Your task to perform on an android device: toggle sleep mode Image 0: 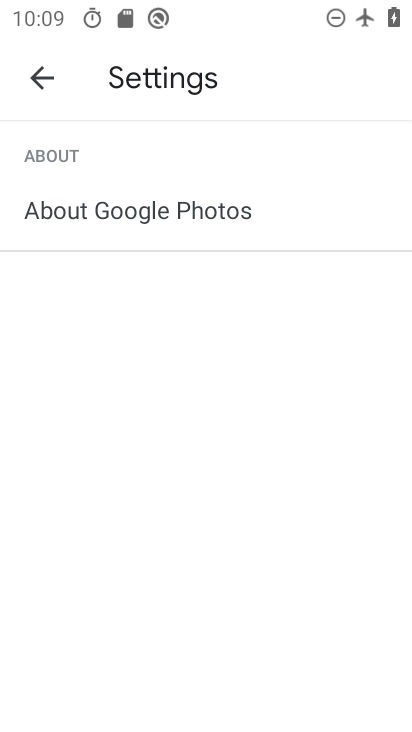
Step 0: press home button
Your task to perform on an android device: toggle sleep mode Image 1: 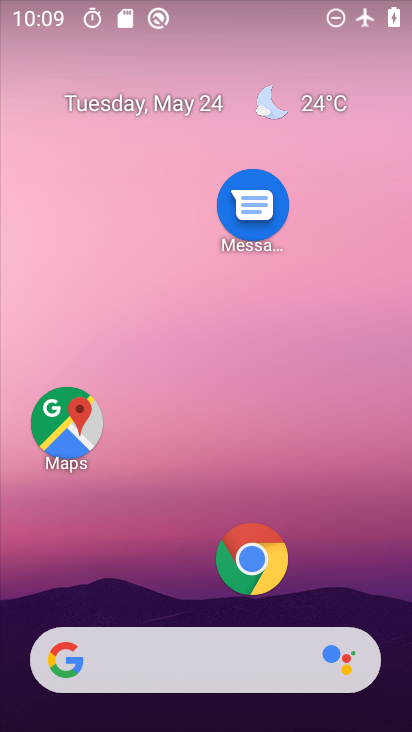
Step 1: drag from (176, 573) to (202, 220)
Your task to perform on an android device: toggle sleep mode Image 2: 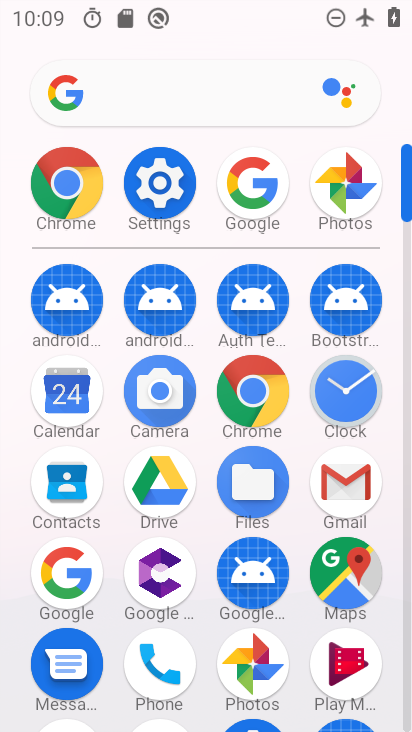
Step 2: click (167, 184)
Your task to perform on an android device: toggle sleep mode Image 3: 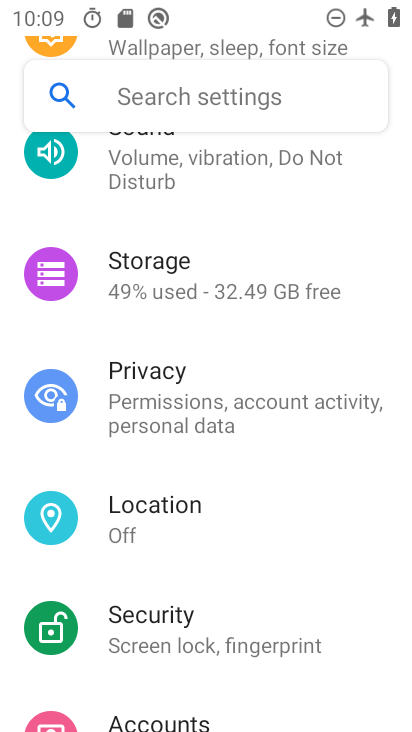
Step 3: drag from (167, 184) to (152, 444)
Your task to perform on an android device: toggle sleep mode Image 4: 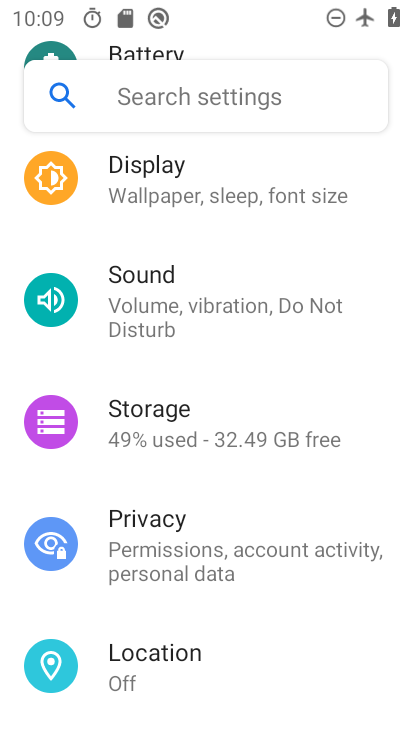
Step 4: drag from (257, 247) to (257, 563)
Your task to perform on an android device: toggle sleep mode Image 5: 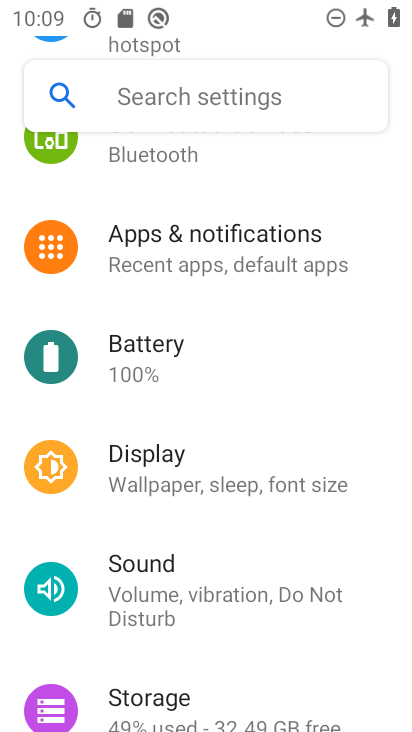
Step 5: drag from (227, 178) to (227, 484)
Your task to perform on an android device: toggle sleep mode Image 6: 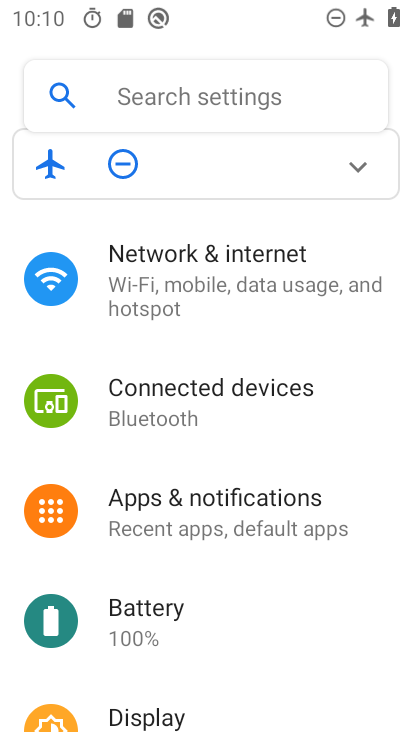
Step 6: drag from (192, 692) to (232, 416)
Your task to perform on an android device: toggle sleep mode Image 7: 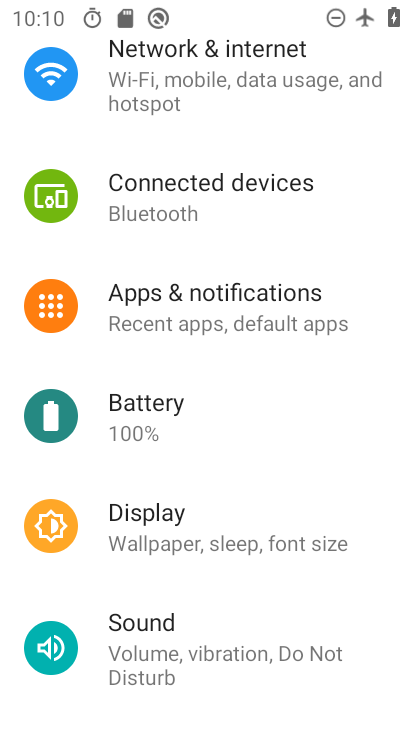
Step 7: click (219, 521)
Your task to perform on an android device: toggle sleep mode Image 8: 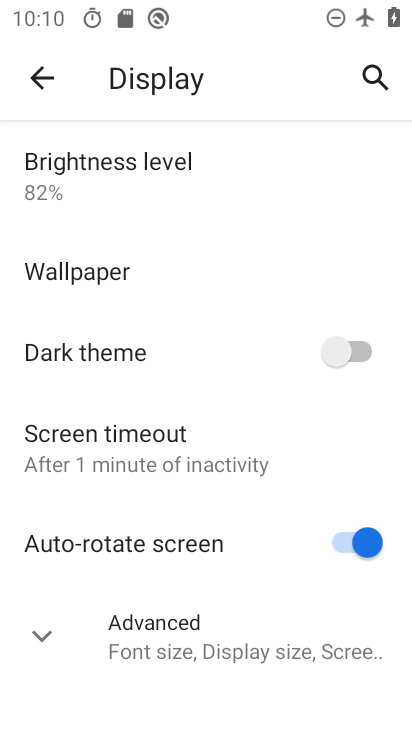
Step 8: click (186, 642)
Your task to perform on an android device: toggle sleep mode Image 9: 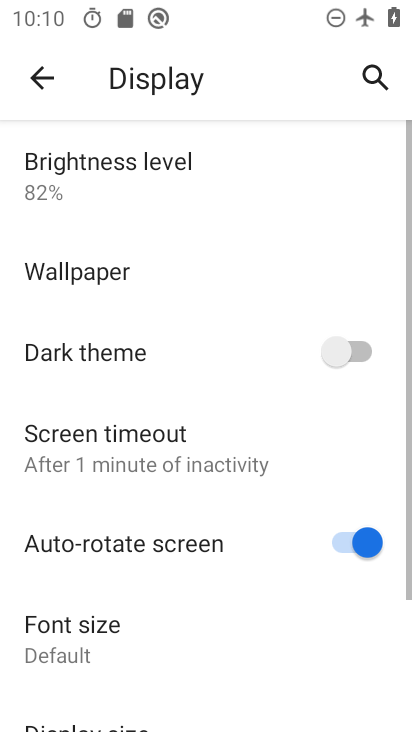
Step 9: drag from (186, 642) to (209, 357)
Your task to perform on an android device: toggle sleep mode Image 10: 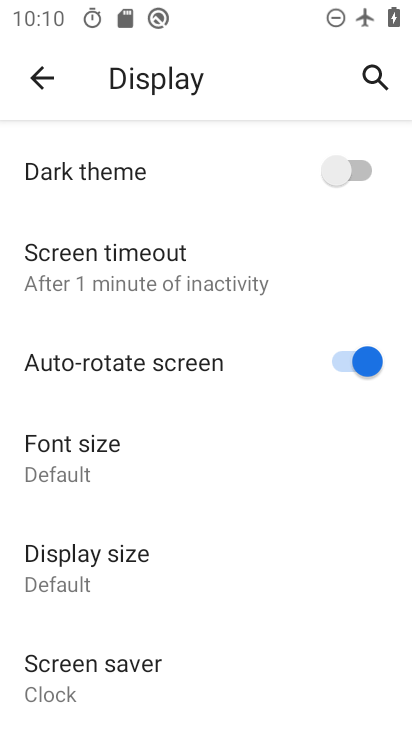
Step 10: drag from (161, 587) to (195, 355)
Your task to perform on an android device: toggle sleep mode Image 11: 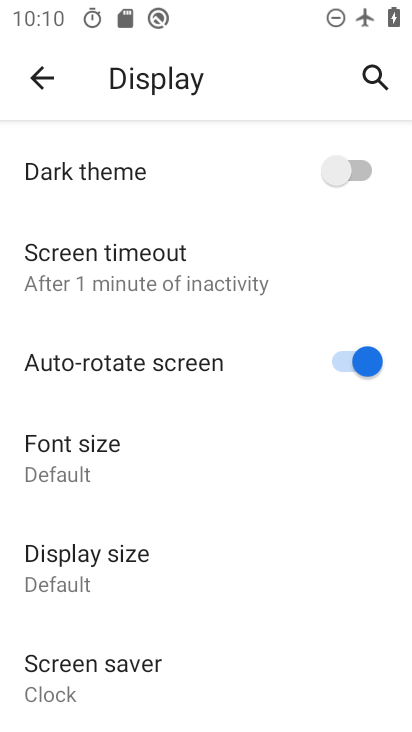
Step 11: click (217, 262)
Your task to perform on an android device: toggle sleep mode Image 12: 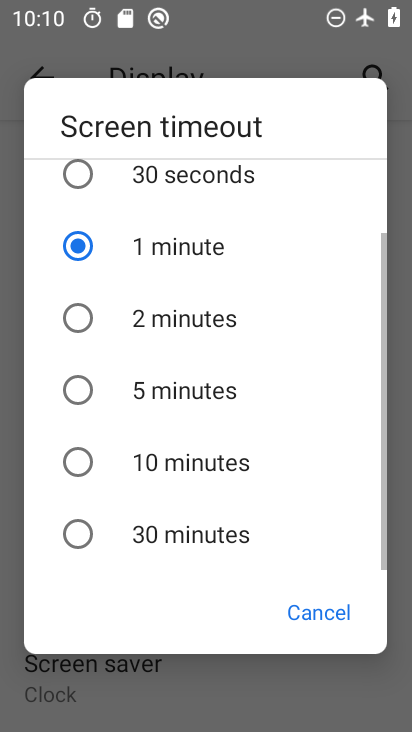
Step 12: click (159, 462)
Your task to perform on an android device: toggle sleep mode Image 13: 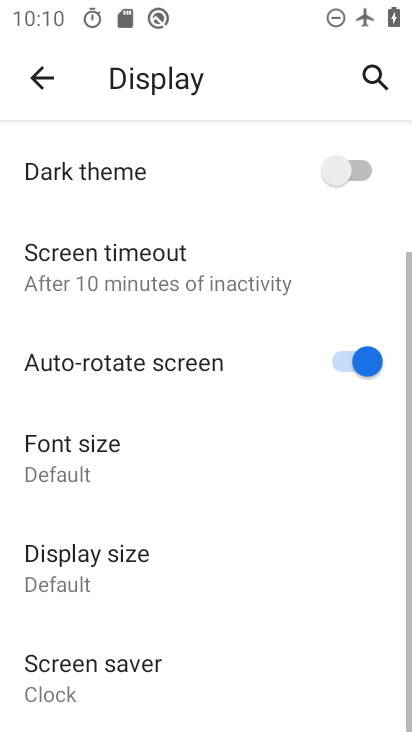
Step 13: task complete